Your task to perform on an android device: Go to notification settings Image 0: 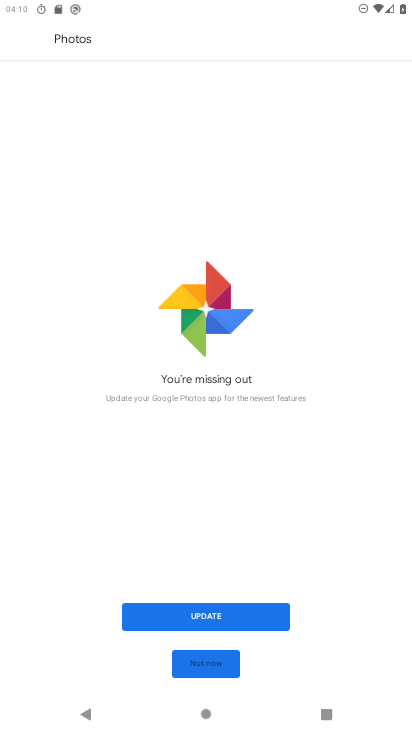
Step 0: press home button
Your task to perform on an android device: Go to notification settings Image 1: 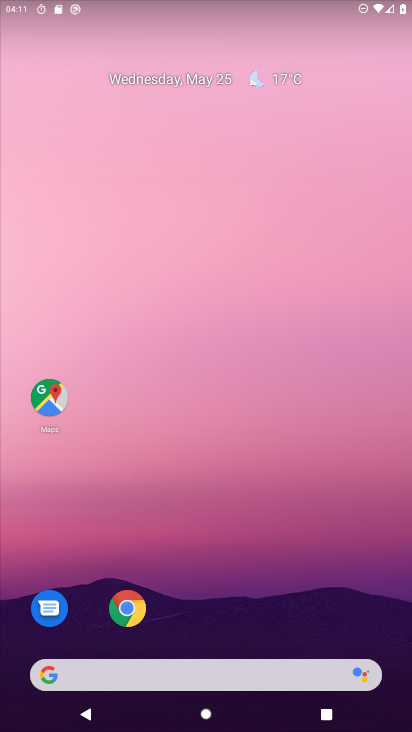
Step 1: drag from (321, 609) to (210, 5)
Your task to perform on an android device: Go to notification settings Image 2: 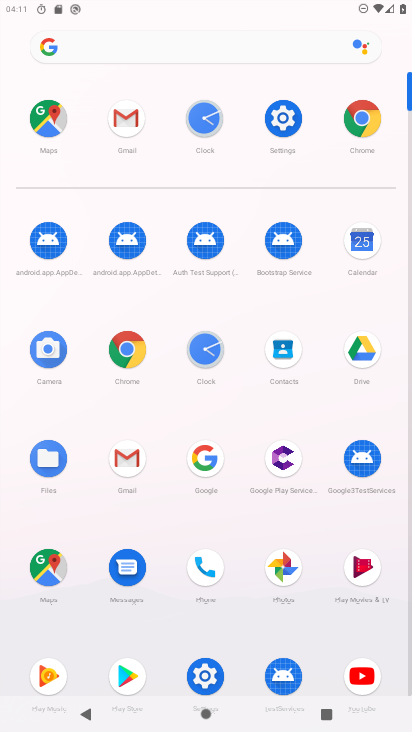
Step 2: click (278, 127)
Your task to perform on an android device: Go to notification settings Image 3: 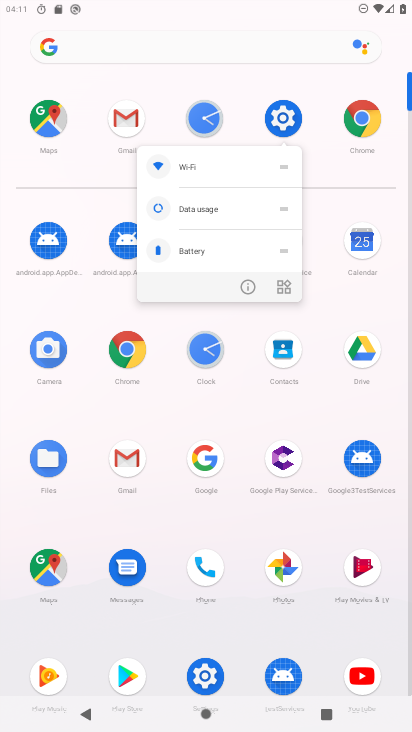
Step 3: click (275, 117)
Your task to perform on an android device: Go to notification settings Image 4: 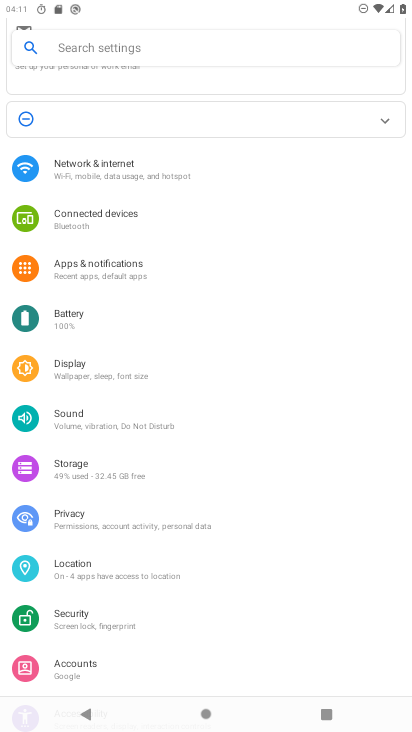
Step 4: click (108, 257)
Your task to perform on an android device: Go to notification settings Image 5: 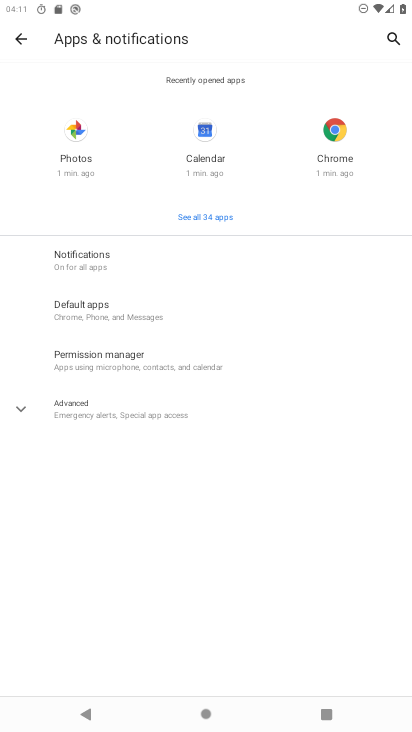
Step 5: click (97, 255)
Your task to perform on an android device: Go to notification settings Image 6: 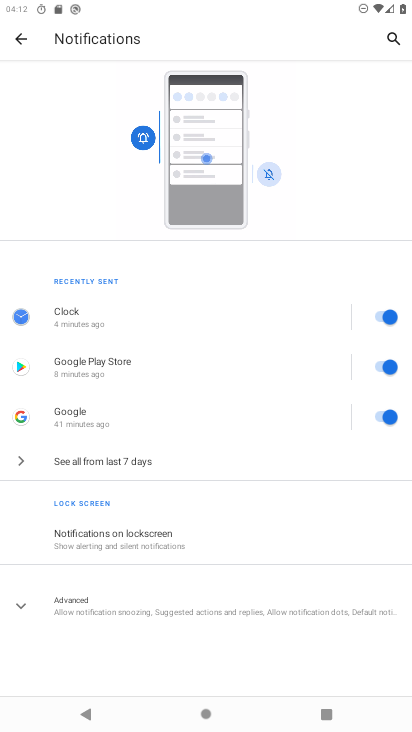
Step 6: task complete